Your task to perform on an android device: show emergency info Image 0: 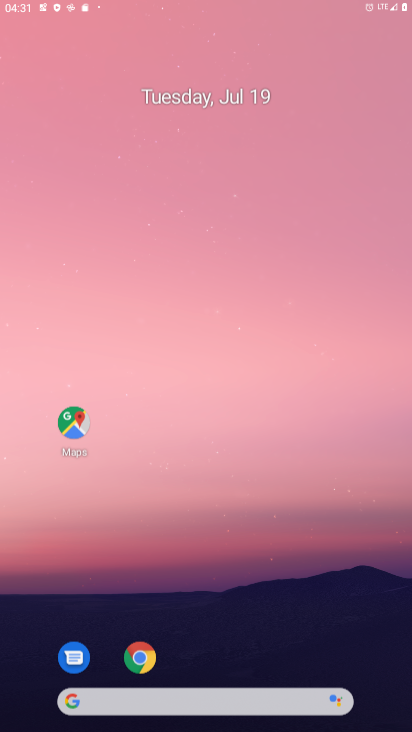
Step 0: press home button
Your task to perform on an android device: show emergency info Image 1: 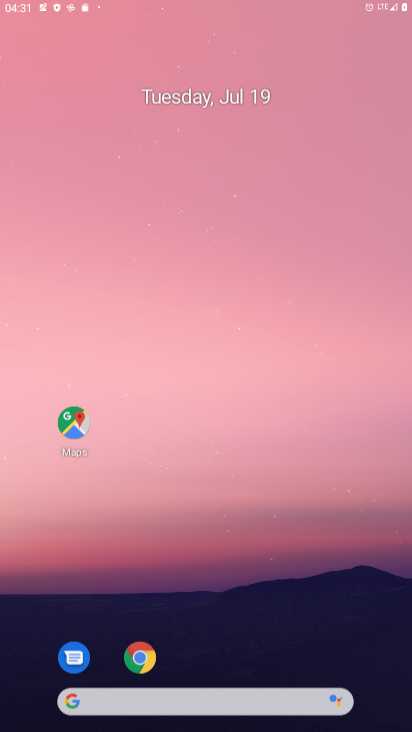
Step 1: click (232, 0)
Your task to perform on an android device: show emergency info Image 2: 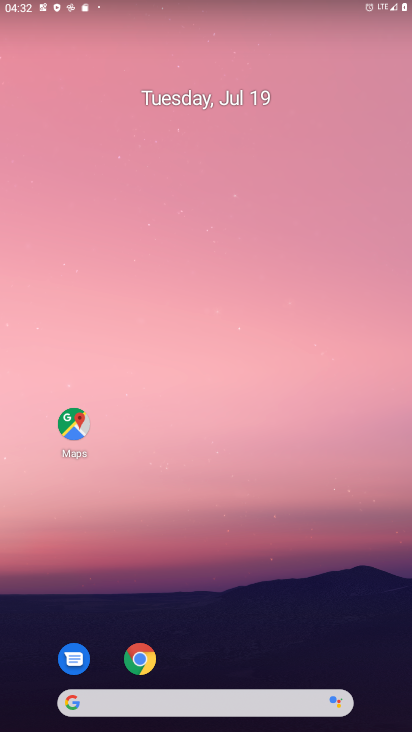
Step 2: drag from (225, 576) to (219, 3)
Your task to perform on an android device: show emergency info Image 3: 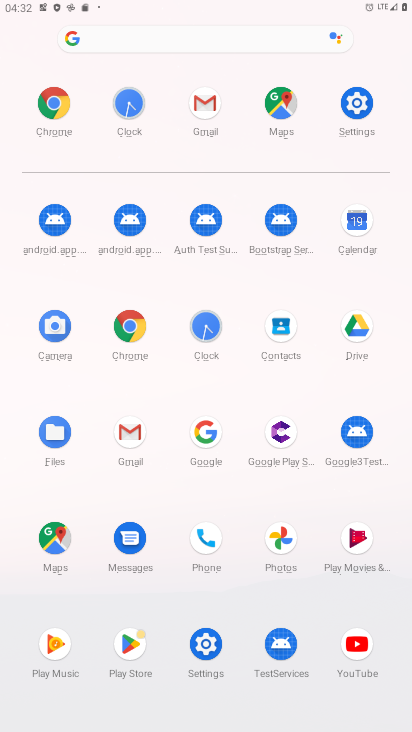
Step 3: click (362, 130)
Your task to perform on an android device: show emergency info Image 4: 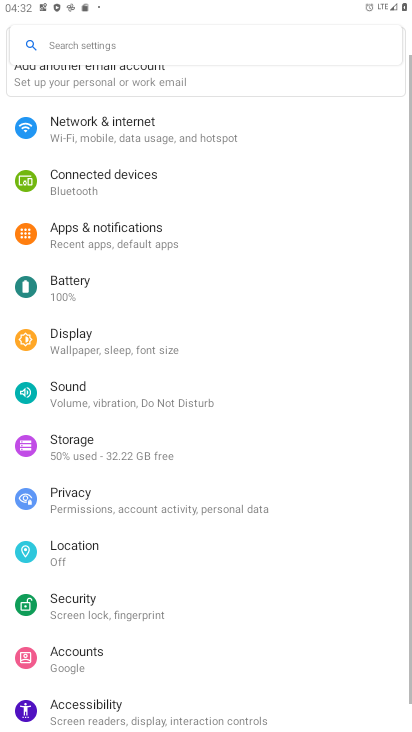
Step 4: drag from (133, 646) to (89, 186)
Your task to perform on an android device: show emergency info Image 5: 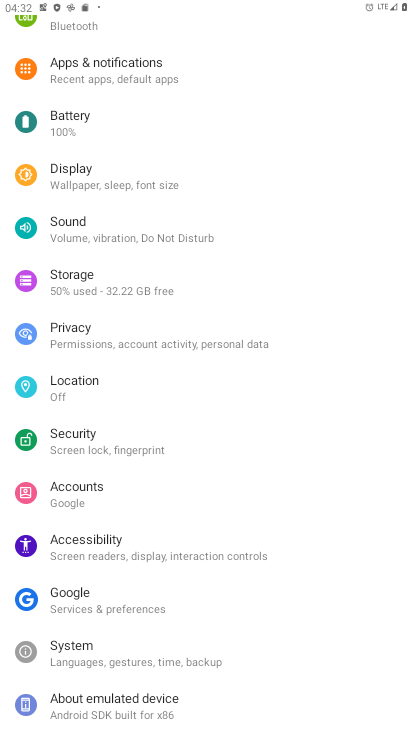
Step 5: click (139, 699)
Your task to perform on an android device: show emergency info Image 6: 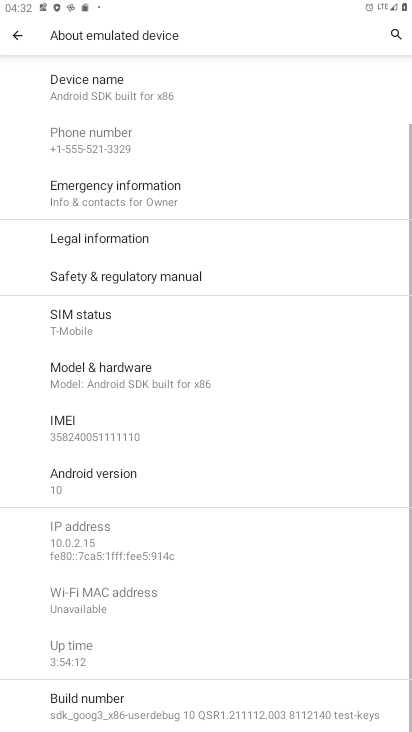
Step 6: drag from (96, 598) to (114, 472)
Your task to perform on an android device: show emergency info Image 7: 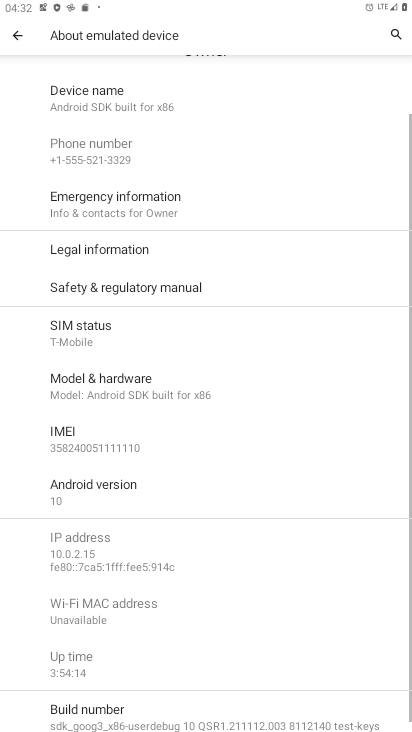
Step 7: click (73, 200)
Your task to perform on an android device: show emergency info Image 8: 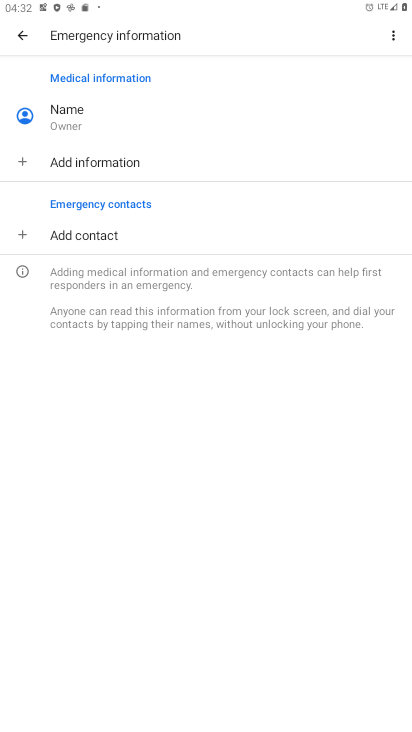
Step 8: task complete